Your task to perform on an android device: toggle pop-ups in chrome Image 0: 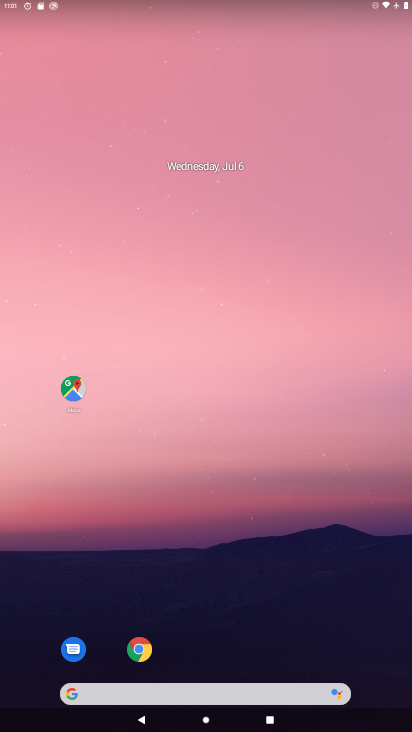
Step 0: click (138, 645)
Your task to perform on an android device: toggle pop-ups in chrome Image 1: 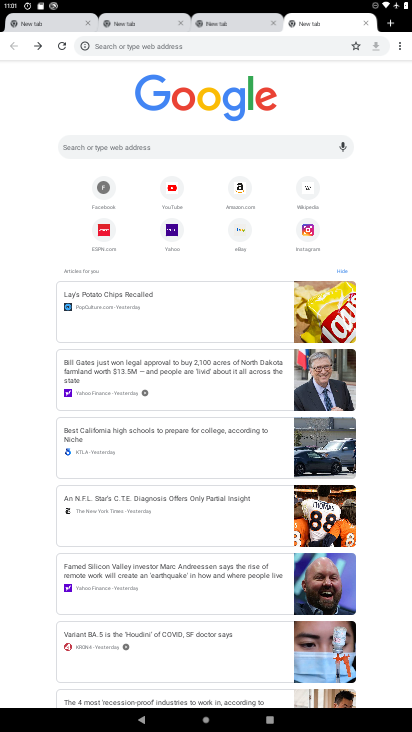
Step 1: click (401, 43)
Your task to perform on an android device: toggle pop-ups in chrome Image 2: 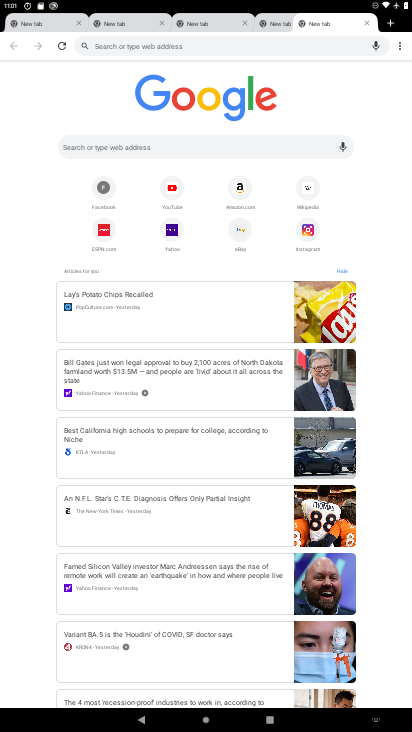
Step 2: click (401, 44)
Your task to perform on an android device: toggle pop-ups in chrome Image 3: 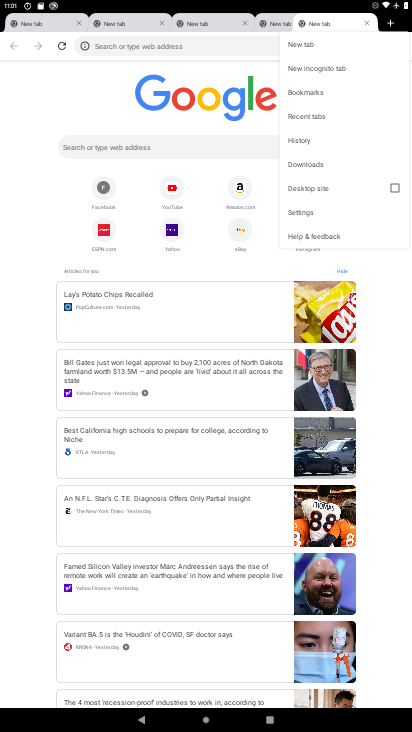
Step 3: click (308, 210)
Your task to perform on an android device: toggle pop-ups in chrome Image 4: 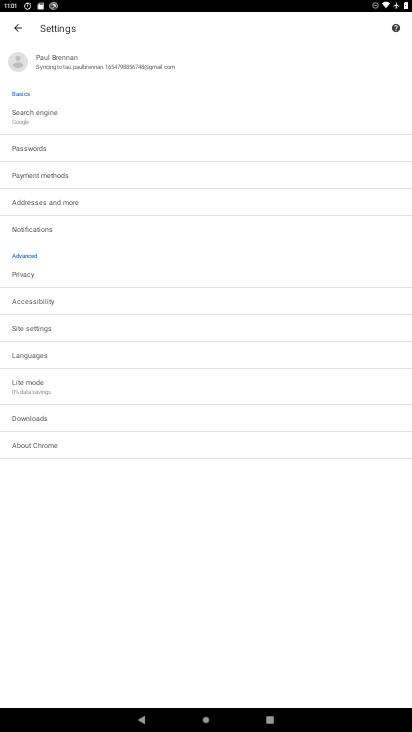
Step 4: click (46, 321)
Your task to perform on an android device: toggle pop-ups in chrome Image 5: 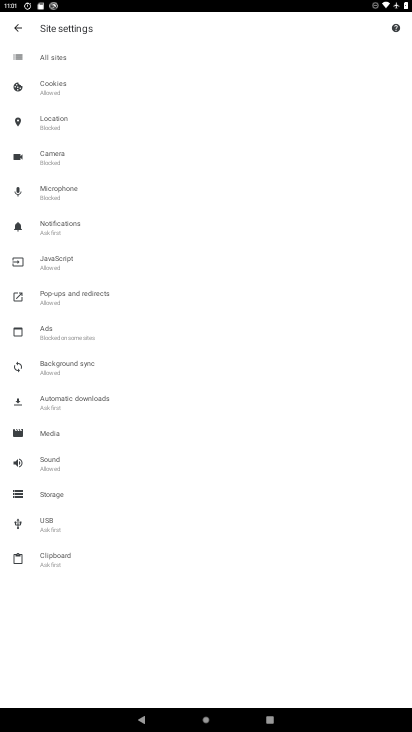
Step 5: click (56, 291)
Your task to perform on an android device: toggle pop-ups in chrome Image 6: 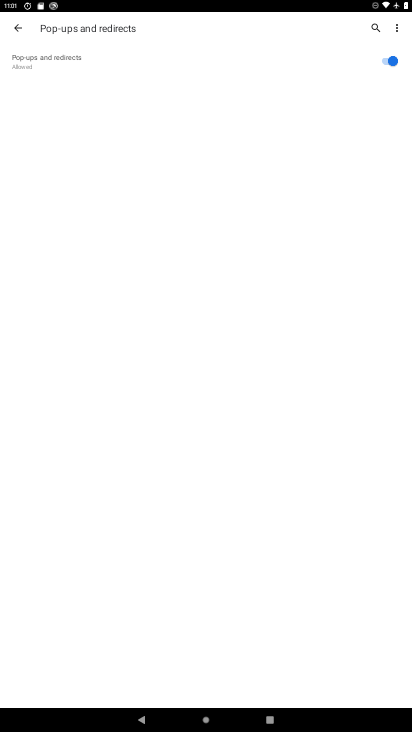
Step 6: click (386, 54)
Your task to perform on an android device: toggle pop-ups in chrome Image 7: 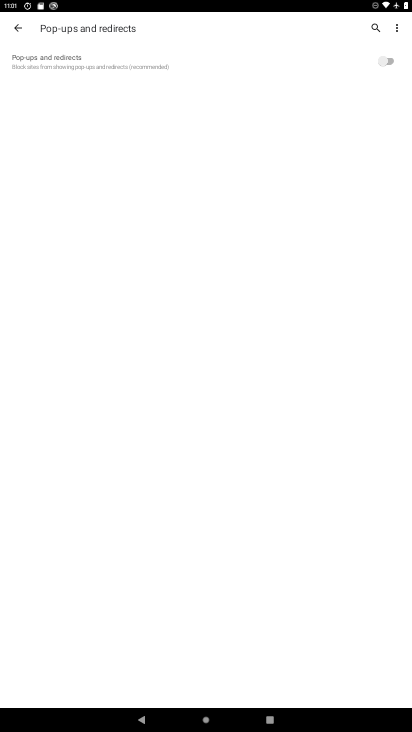
Step 7: task complete